Your task to perform on an android device: toggle location history Image 0: 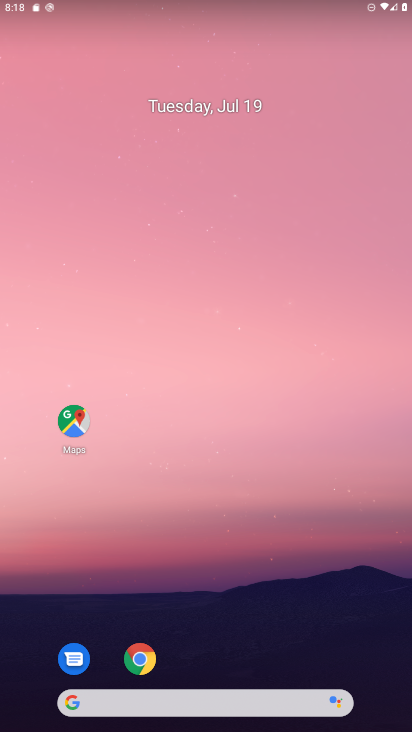
Step 0: drag from (150, 617) to (135, 150)
Your task to perform on an android device: toggle location history Image 1: 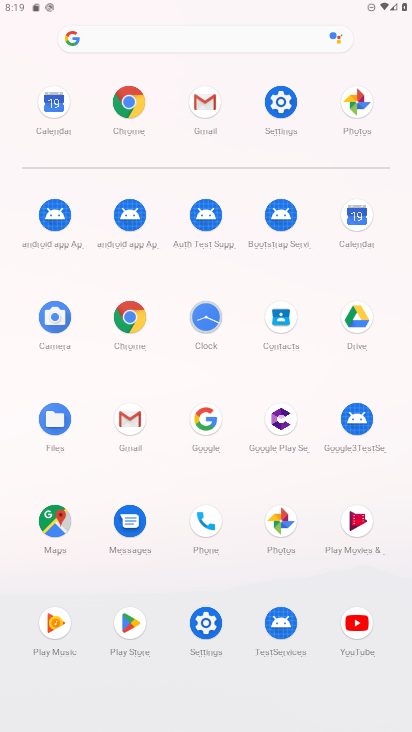
Step 1: click (291, 100)
Your task to perform on an android device: toggle location history Image 2: 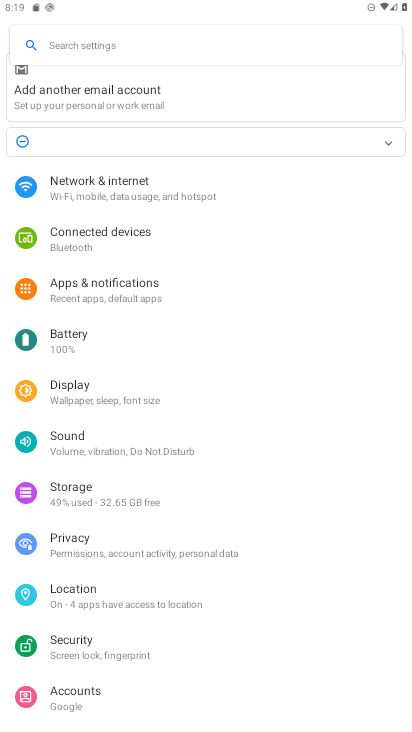
Step 2: click (106, 601)
Your task to perform on an android device: toggle location history Image 3: 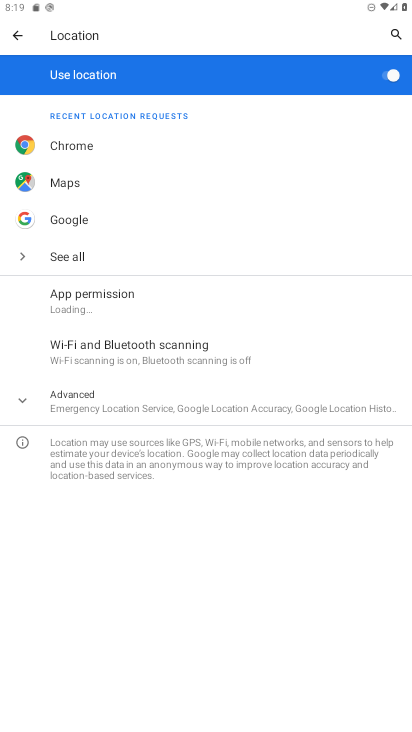
Step 3: click (151, 395)
Your task to perform on an android device: toggle location history Image 4: 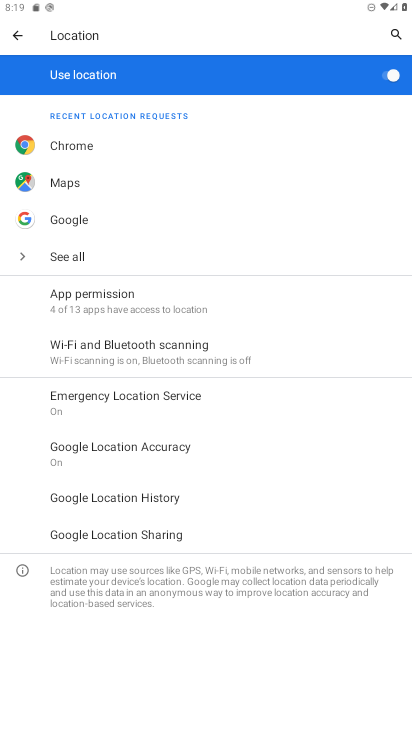
Step 4: click (166, 496)
Your task to perform on an android device: toggle location history Image 5: 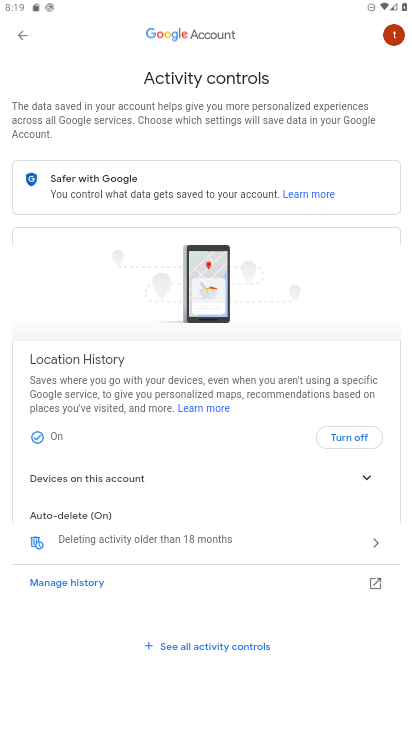
Step 5: click (363, 434)
Your task to perform on an android device: toggle location history Image 6: 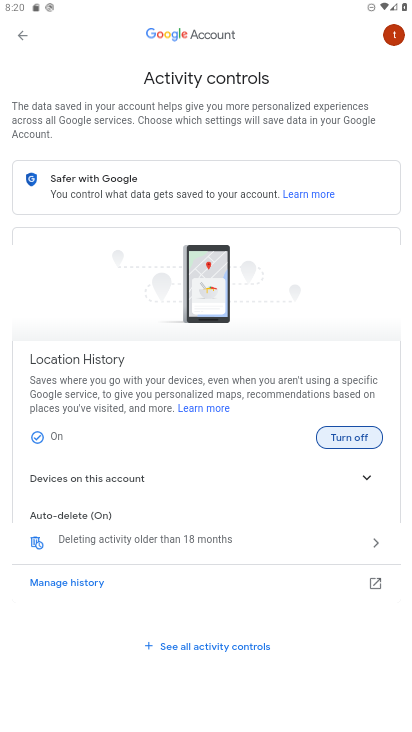
Step 6: task complete